Your task to perform on an android device: toggle notification dots Image 0: 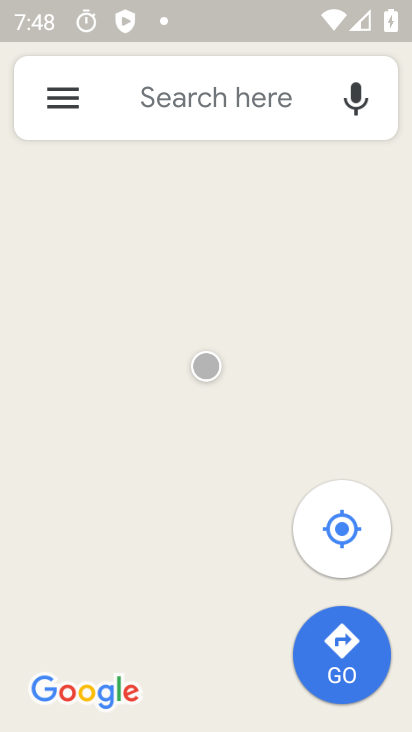
Step 0: press home button
Your task to perform on an android device: toggle notification dots Image 1: 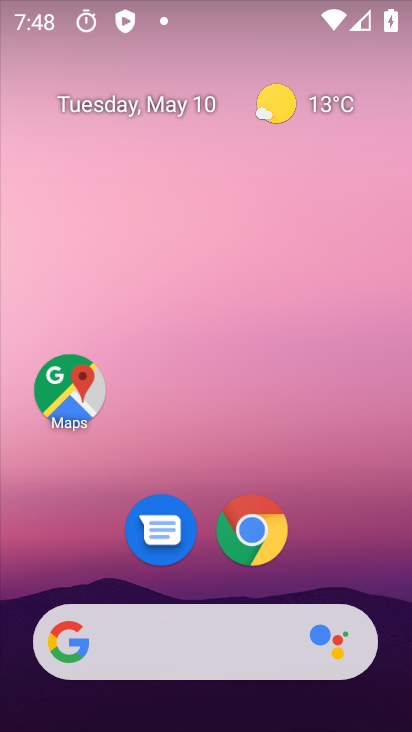
Step 1: drag from (390, 472) to (267, 117)
Your task to perform on an android device: toggle notification dots Image 2: 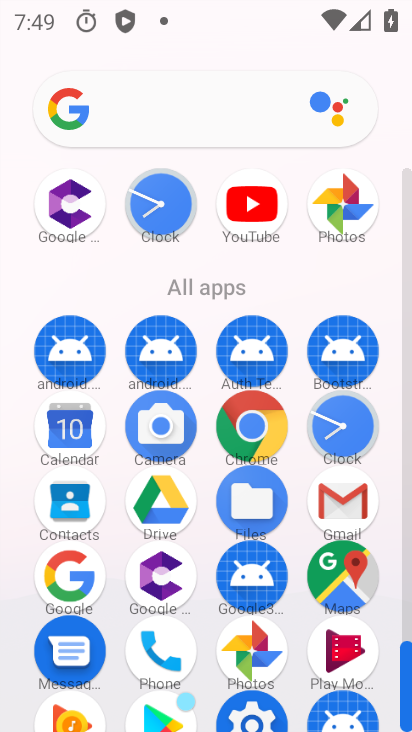
Step 2: drag from (293, 602) to (337, 314)
Your task to perform on an android device: toggle notification dots Image 3: 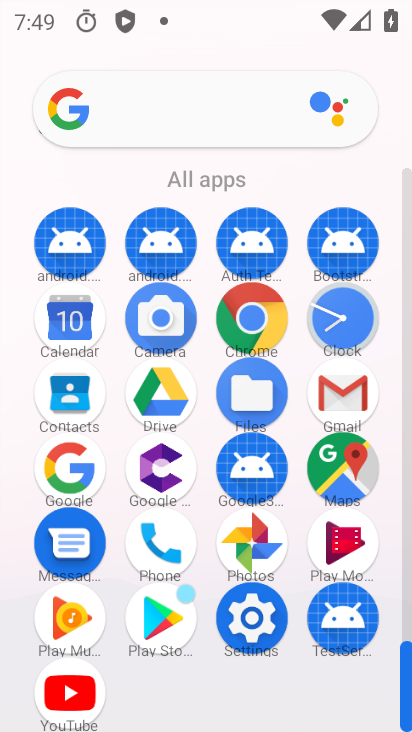
Step 3: click (258, 630)
Your task to perform on an android device: toggle notification dots Image 4: 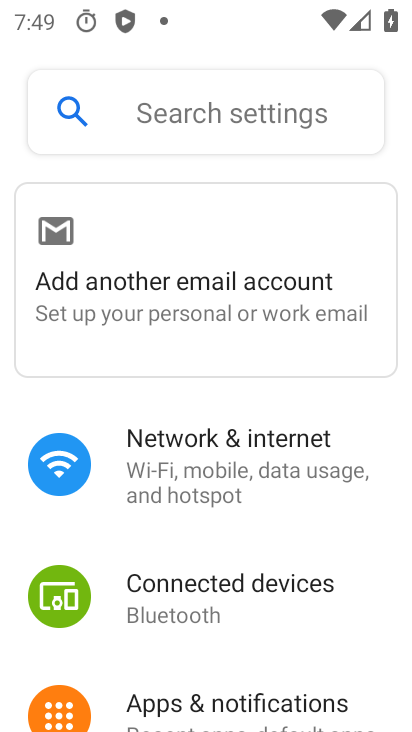
Step 4: drag from (257, 602) to (239, 242)
Your task to perform on an android device: toggle notification dots Image 5: 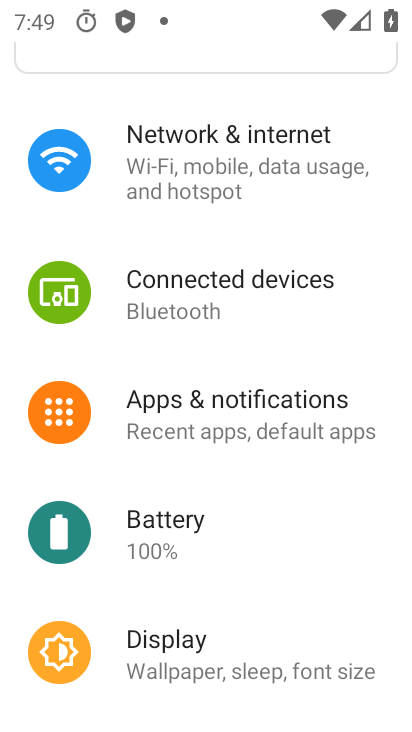
Step 5: click (239, 242)
Your task to perform on an android device: toggle notification dots Image 6: 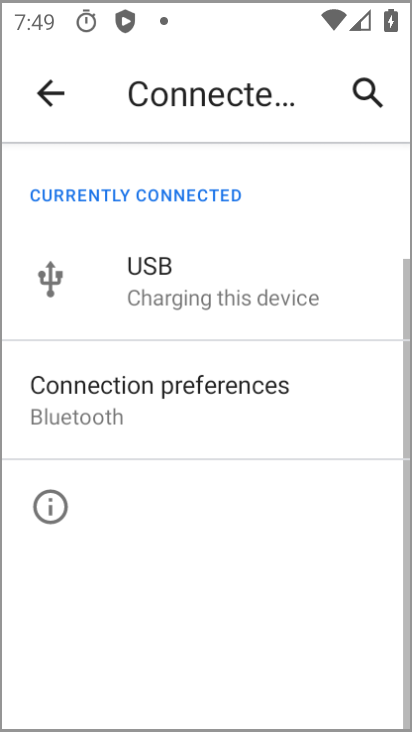
Step 6: click (233, 397)
Your task to perform on an android device: toggle notification dots Image 7: 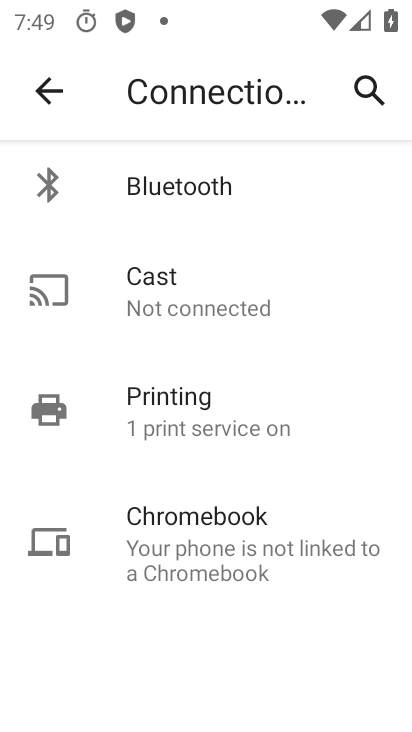
Step 7: click (55, 77)
Your task to perform on an android device: toggle notification dots Image 8: 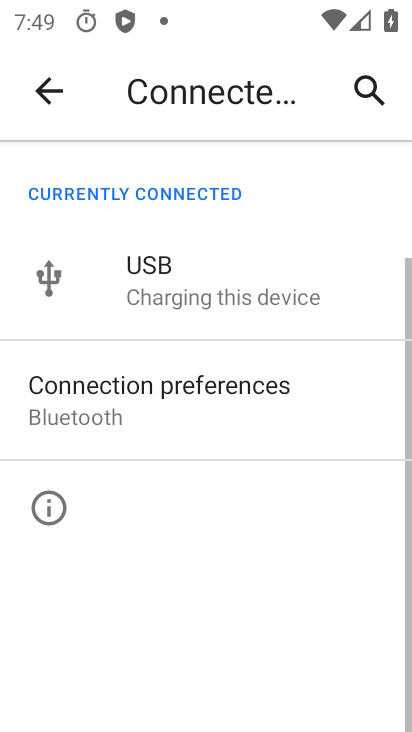
Step 8: click (55, 77)
Your task to perform on an android device: toggle notification dots Image 9: 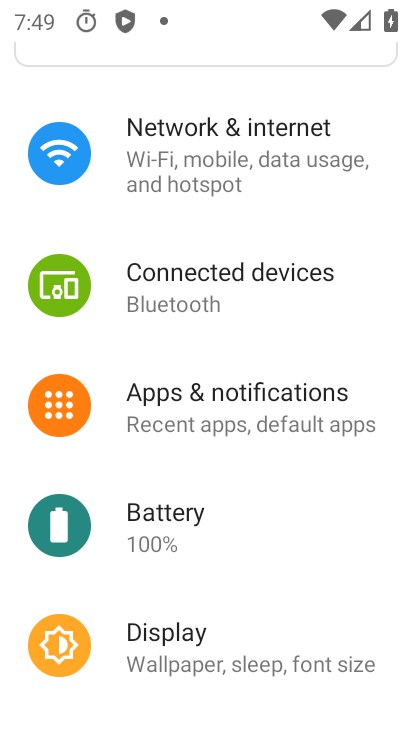
Step 9: click (249, 429)
Your task to perform on an android device: toggle notification dots Image 10: 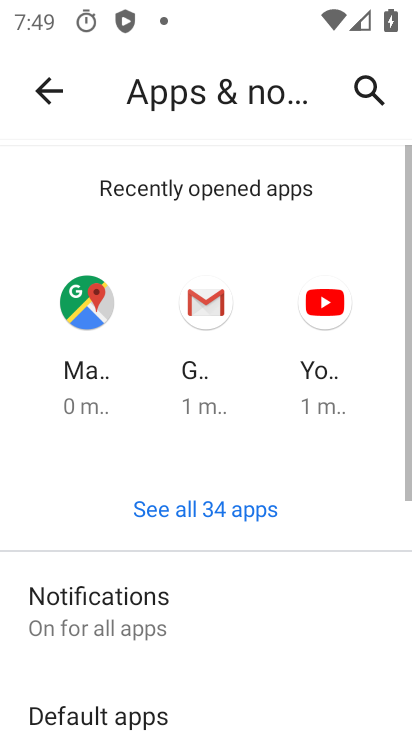
Step 10: drag from (298, 633) to (290, 231)
Your task to perform on an android device: toggle notification dots Image 11: 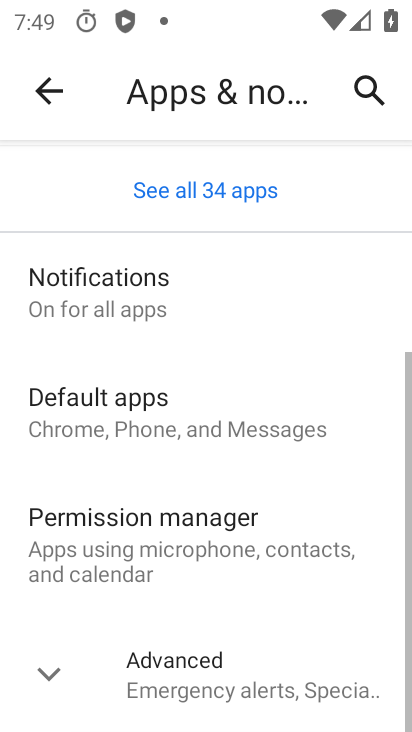
Step 11: click (71, 294)
Your task to perform on an android device: toggle notification dots Image 12: 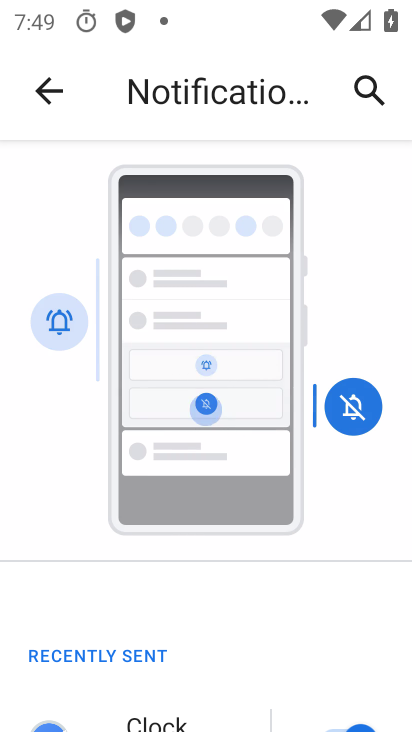
Step 12: drag from (283, 660) to (258, 324)
Your task to perform on an android device: toggle notification dots Image 13: 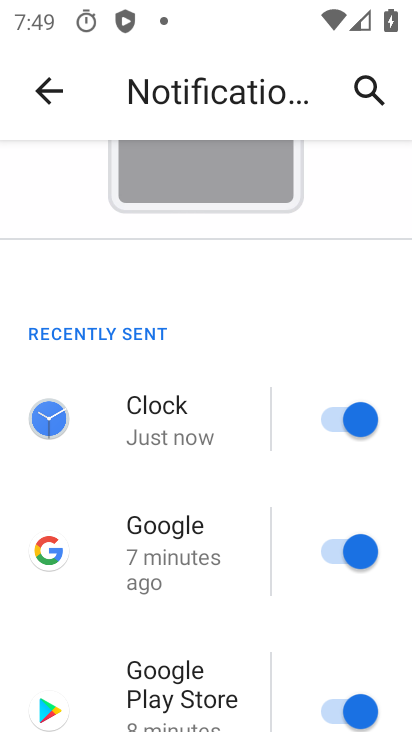
Step 13: drag from (258, 680) to (270, 285)
Your task to perform on an android device: toggle notification dots Image 14: 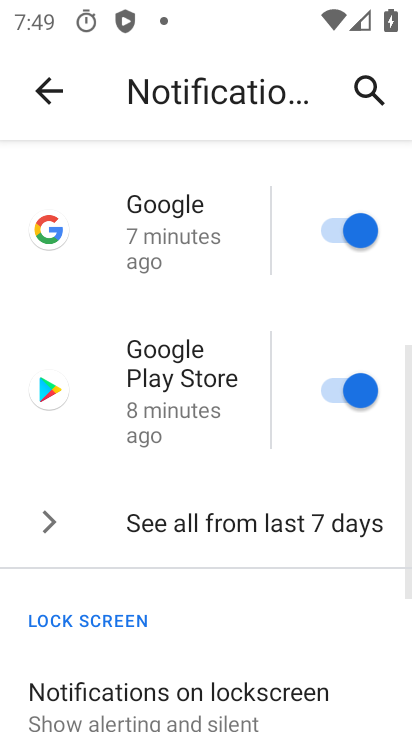
Step 14: drag from (315, 634) to (310, 351)
Your task to perform on an android device: toggle notification dots Image 15: 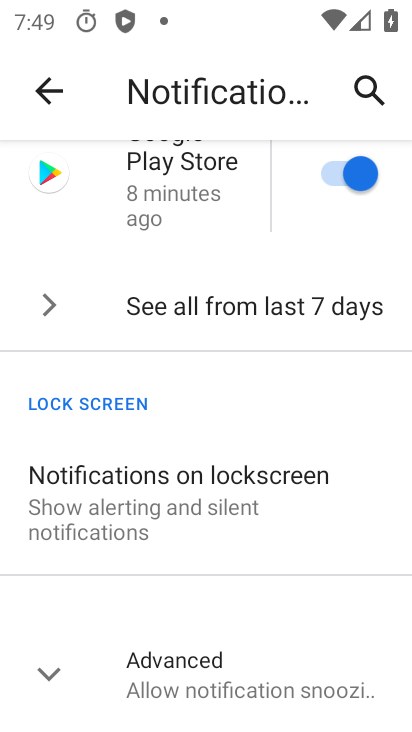
Step 15: drag from (244, 650) to (289, 422)
Your task to perform on an android device: toggle notification dots Image 16: 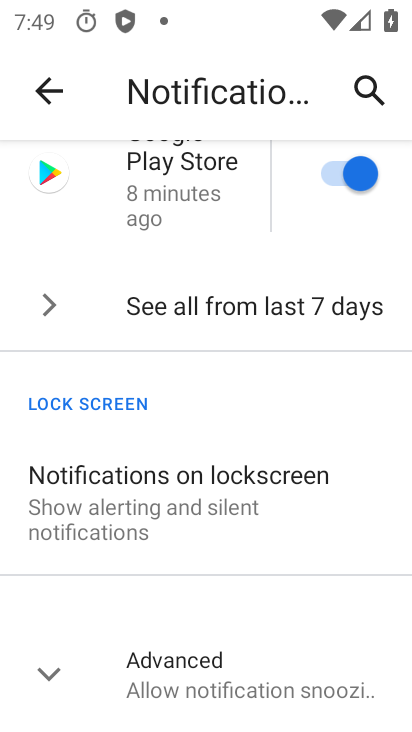
Step 16: click (224, 707)
Your task to perform on an android device: toggle notification dots Image 17: 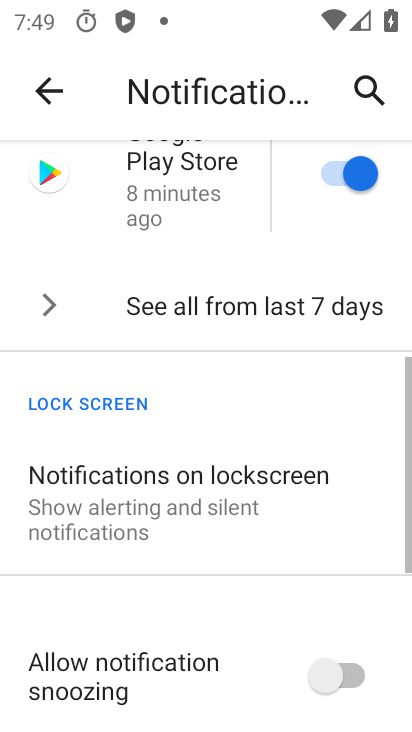
Step 17: drag from (243, 594) to (252, 228)
Your task to perform on an android device: toggle notification dots Image 18: 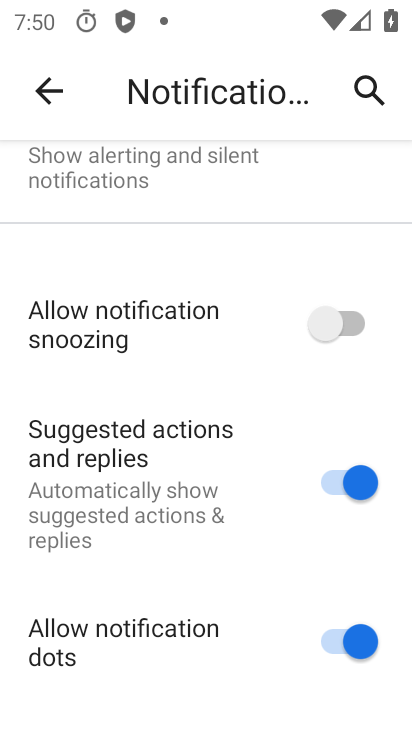
Step 18: drag from (229, 572) to (211, 367)
Your task to perform on an android device: toggle notification dots Image 19: 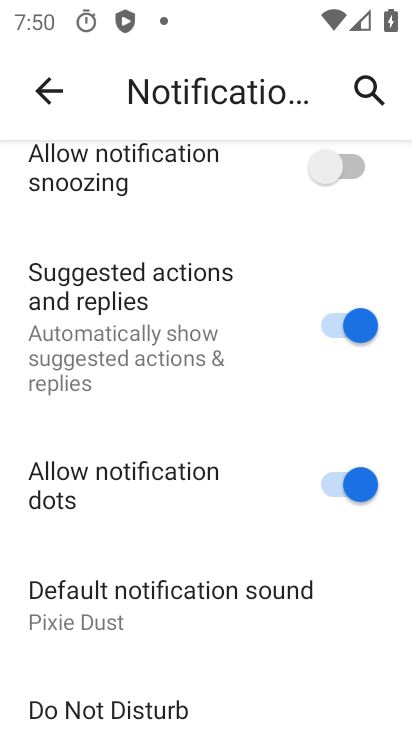
Step 19: click (353, 486)
Your task to perform on an android device: toggle notification dots Image 20: 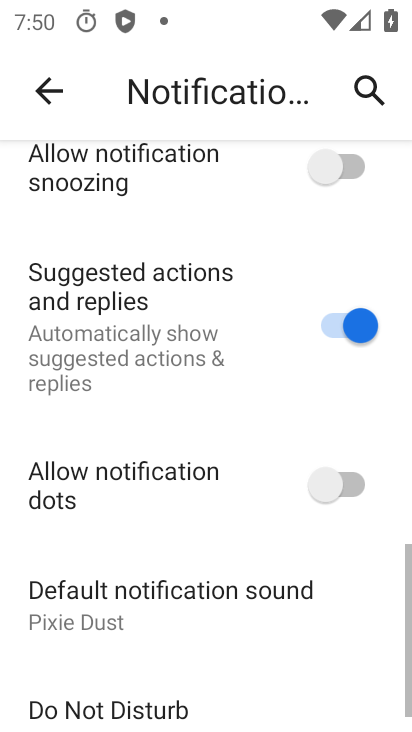
Step 20: task complete